Your task to perform on an android device: change the clock display to show seconds Image 0: 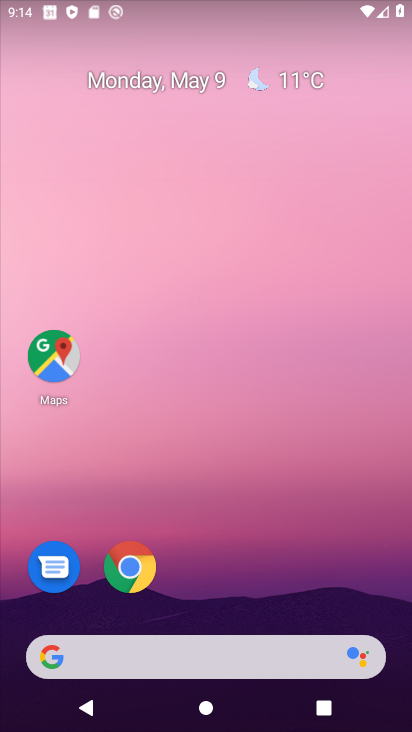
Step 0: drag from (307, 525) to (292, 16)
Your task to perform on an android device: change the clock display to show seconds Image 1: 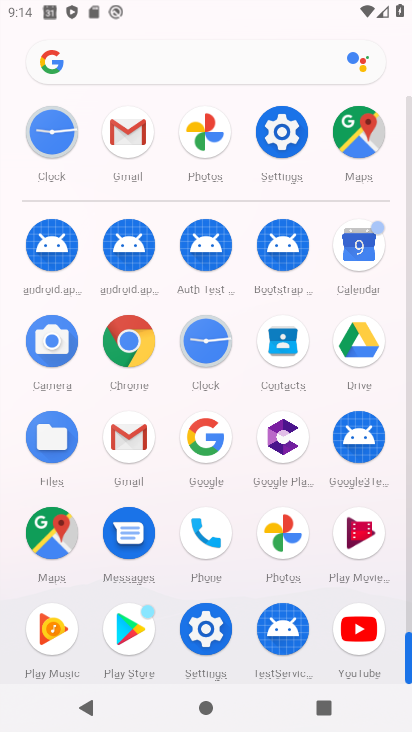
Step 1: click (202, 338)
Your task to perform on an android device: change the clock display to show seconds Image 2: 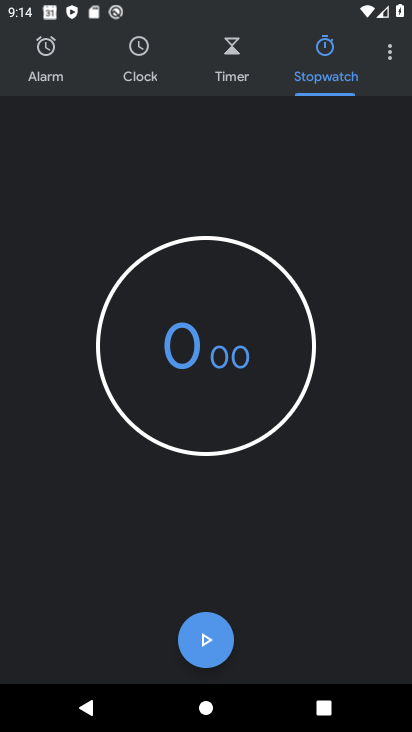
Step 2: click (384, 60)
Your task to perform on an android device: change the clock display to show seconds Image 3: 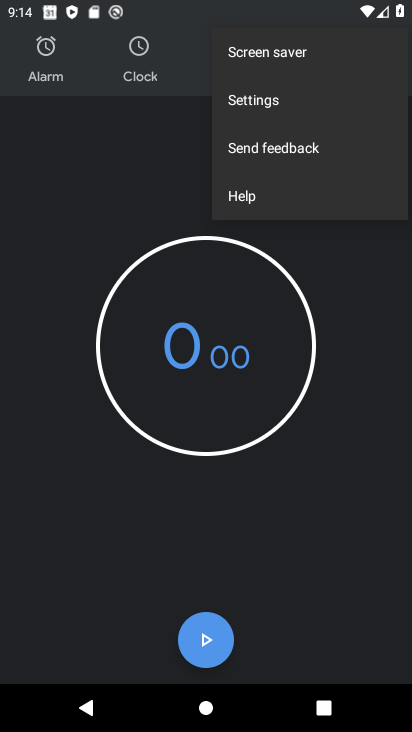
Step 3: click (331, 110)
Your task to perform on an android device: change the clock display to show seconds Image 4: 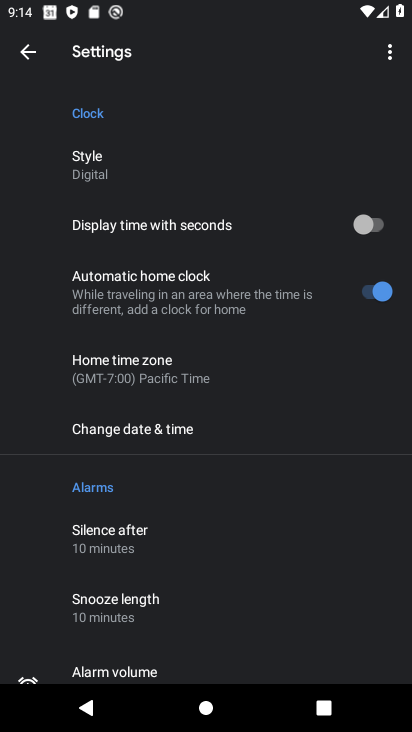
Step 4: click (372, 218)
Your task to perform on an android device: change the clock display to show seconds Image 5: 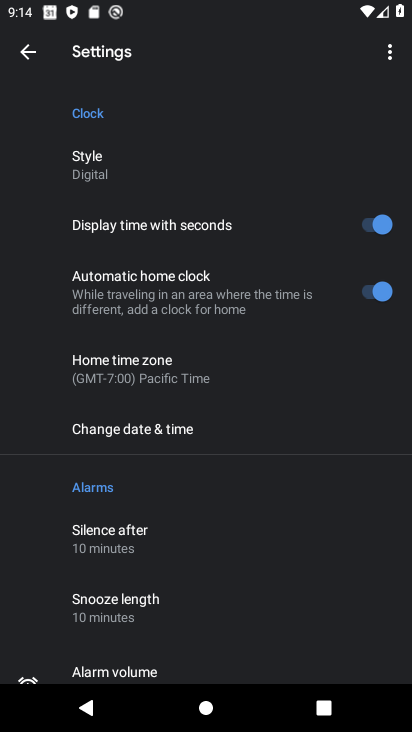
Step 5: click (33, 45)
Your task to perform on an android device: change the clock display to show seconds Image 6: 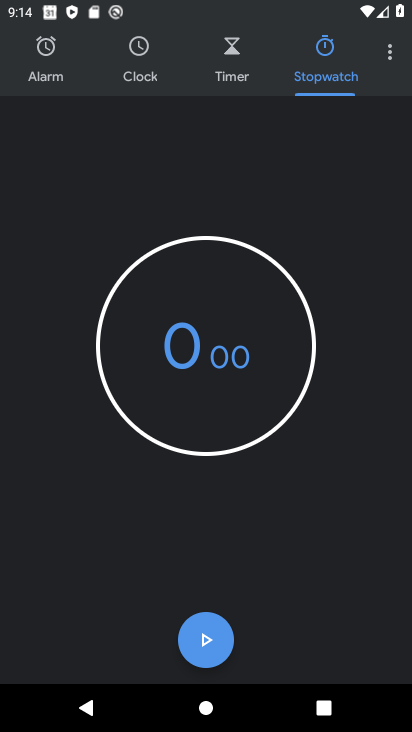
Step 6: click (132, 50)
Your task to perform on an android device: change the clock display to show seconds Image 7: 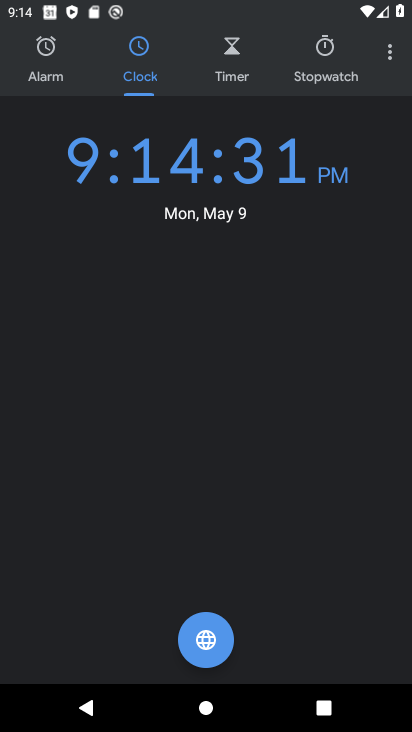
Step 7: task complete